Your task to perform on an android device: Search for a custom made wallet Image 0: 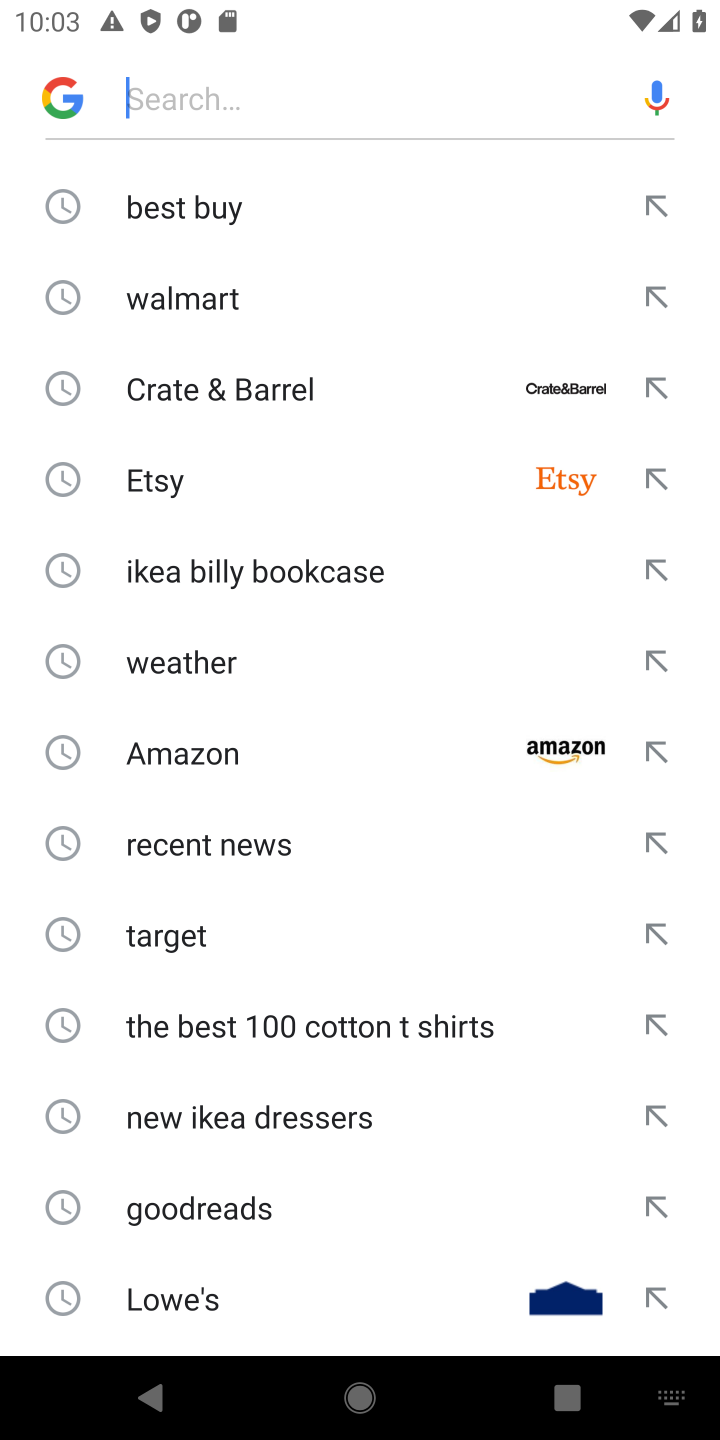
Step 0: type "custom made wallet"
Your task to perform on an android device: Search for a custom made wallet Image 1: 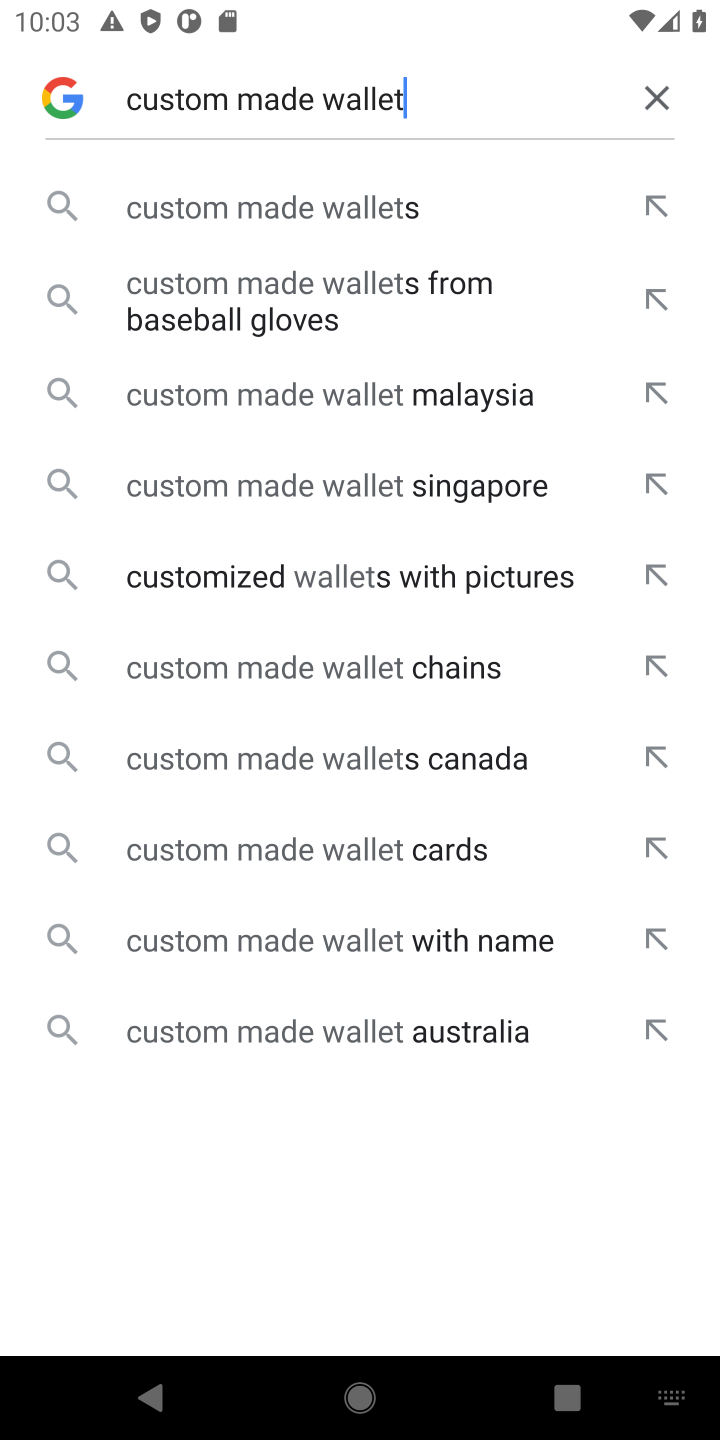
Step 1: click (520, 105)
Your task to perform on an android device: Search for a custom made wallet Image 2: 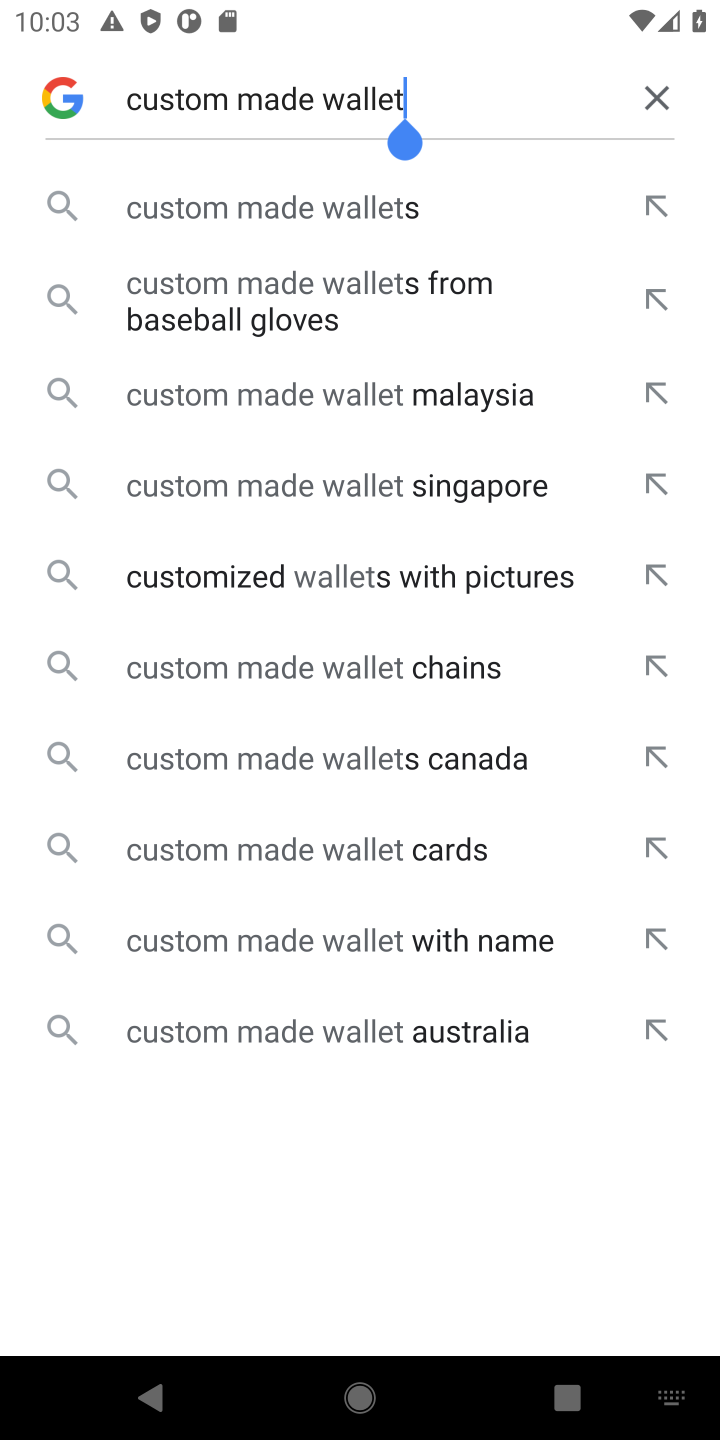
Step 2: click (325, 197)
Your task to perform on an android device: Search for a custom made wallet Image 3: 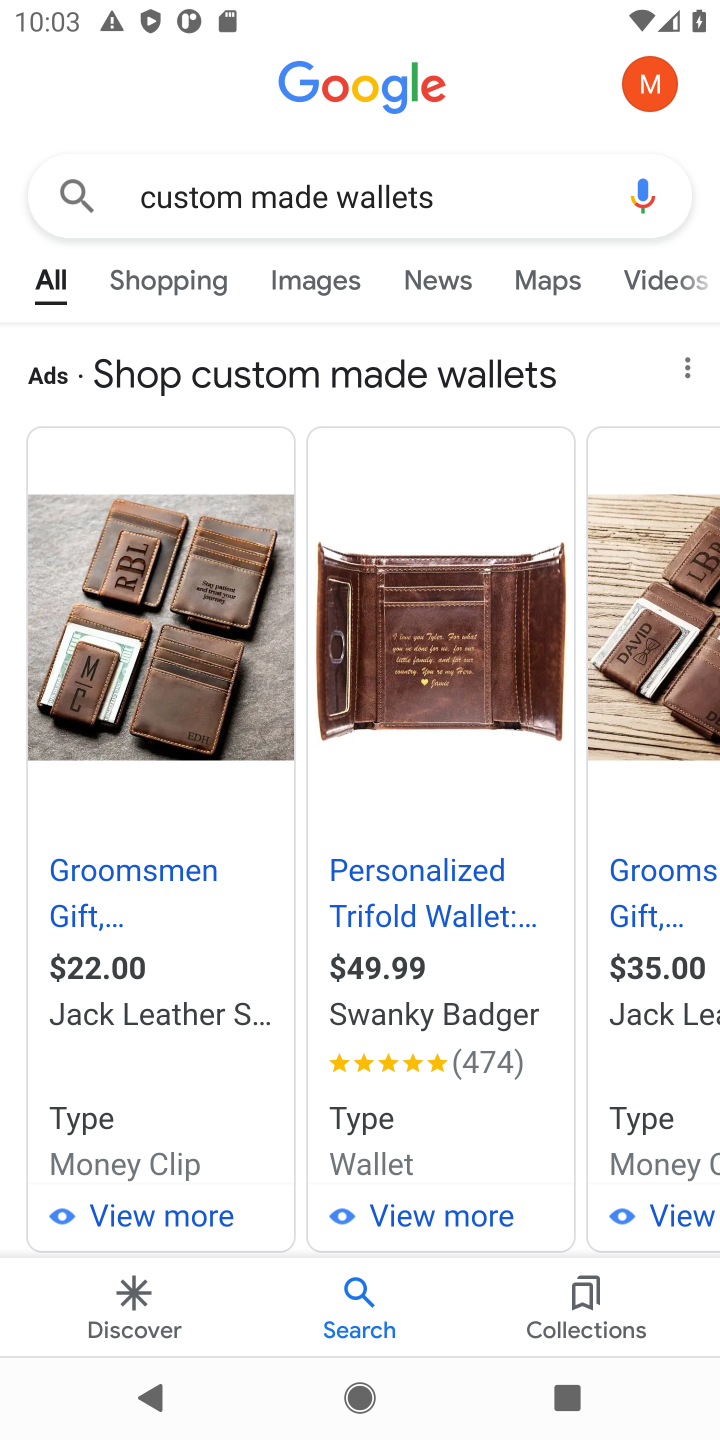
Step 3: task complete